Your task to perform on an android device: open the mobile data screen to see how much data has been used Image 0: 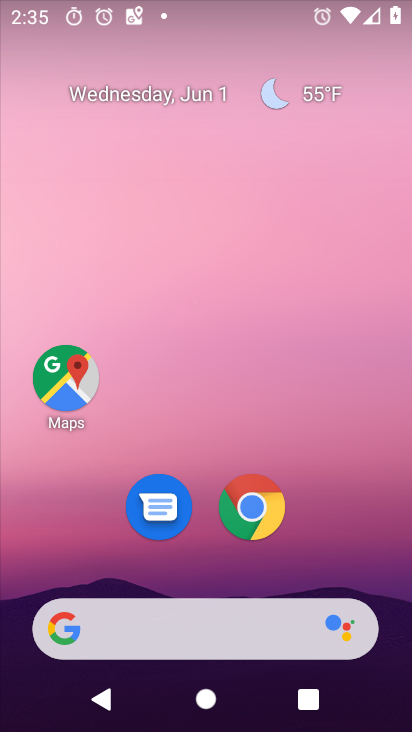
Step 0: drag from (354, 591) to (332, 18)
Your task to perform on an android device: open the mobile data screen to see how much data has been used Image 1: 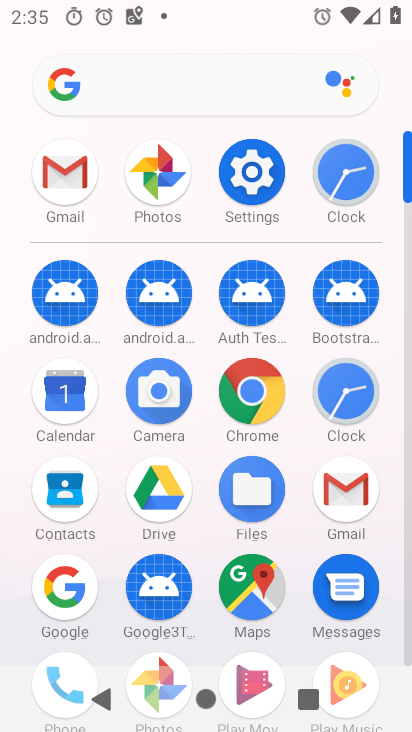
Step 1: click (253, 177)
Your task to perform on an android device: open the mobile data screen to see how much data has been used Image 2: 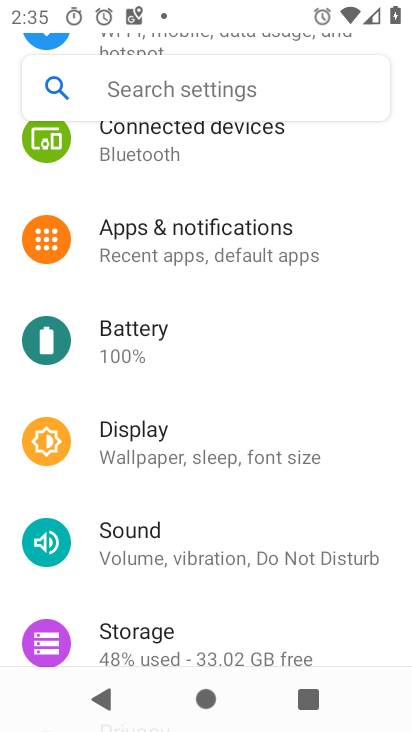
Step 2: drag from (311, 219) to (329, 522)
Your task to perform on an android device: open the mobile data screen to see how much data has been used Image 3: 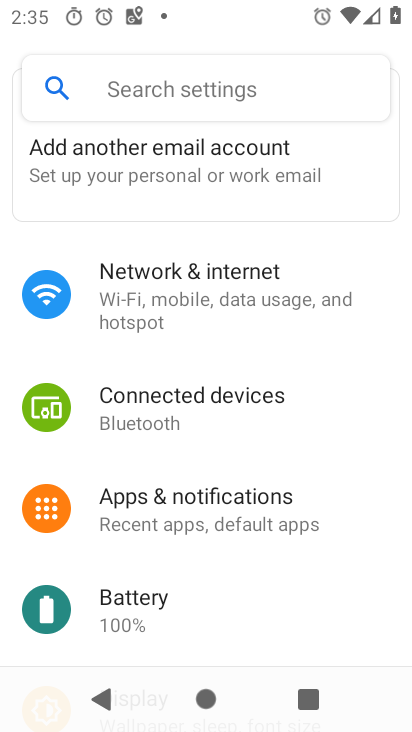
Step 3: click (204, 294)
Your task to perform on an android device: open the mobile data screen to see how much data has been used Image 4: 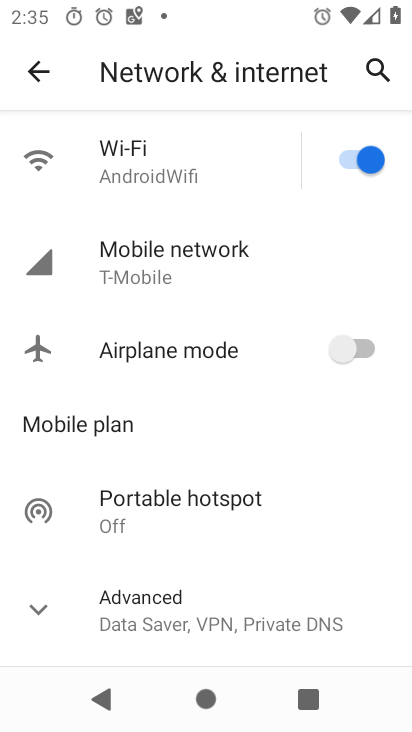
Step 4: click (155, 274)
Your task to perform on an android device: open the mobile data screen to see how much data has been used Image 5: 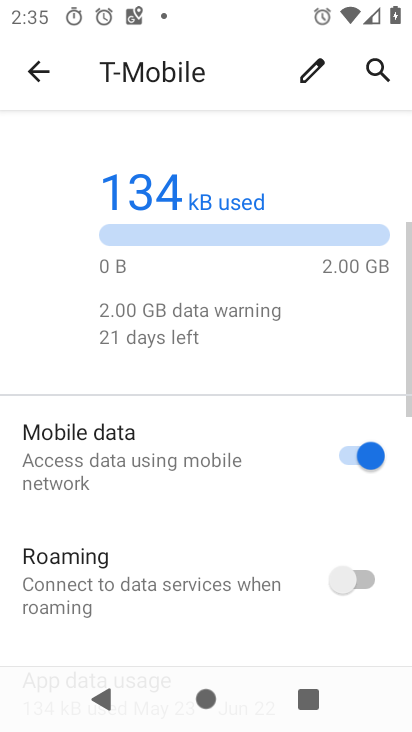
Step 5: drag from (176, 529) to (156, 182)
Your task to perform on an android device: open the mobile data screen to see how much data has been used Image 6: 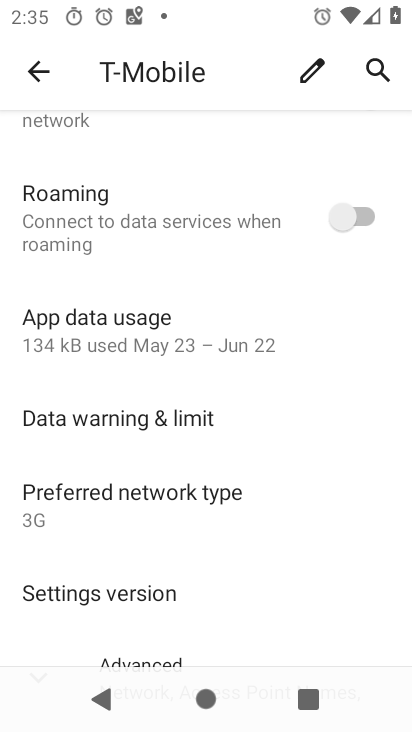
Step 6: click (97, 346)
Your task to perform on an android device: open the mobile data screen to see how much data has been used Image 7: 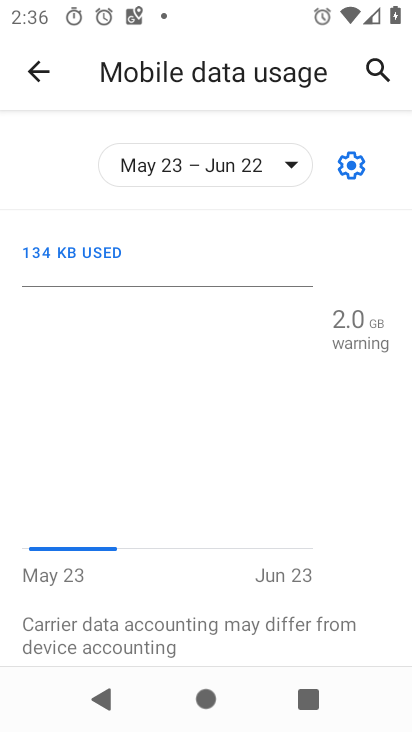
Step 7: task complete